Your task to perform on an android device: Do I have any events tomorrow? Image 0: 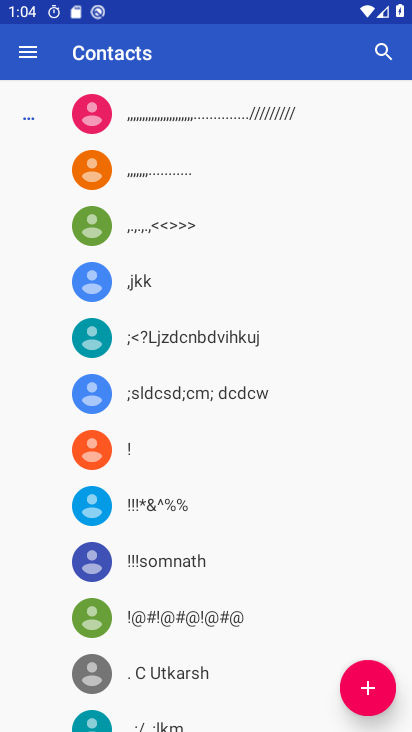
Step 0: drag from (190, 484) to (263, 244)
Your task to perform on an android device: Do I have any events tomorrow? Image 1: 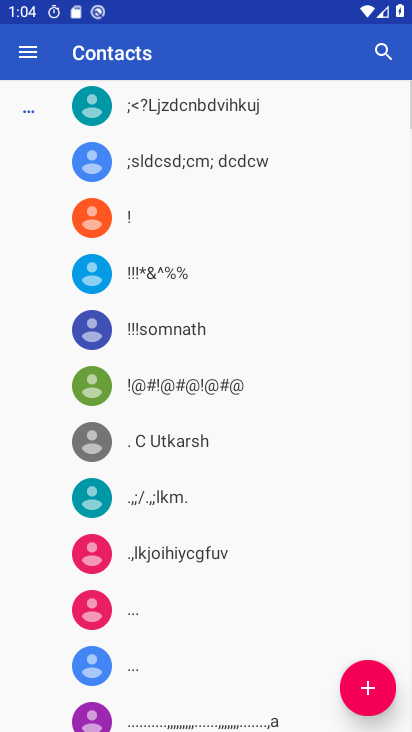
Step 1: press home button
Your task to perform on an android device: Do I have any events tomorrow? Image 2: 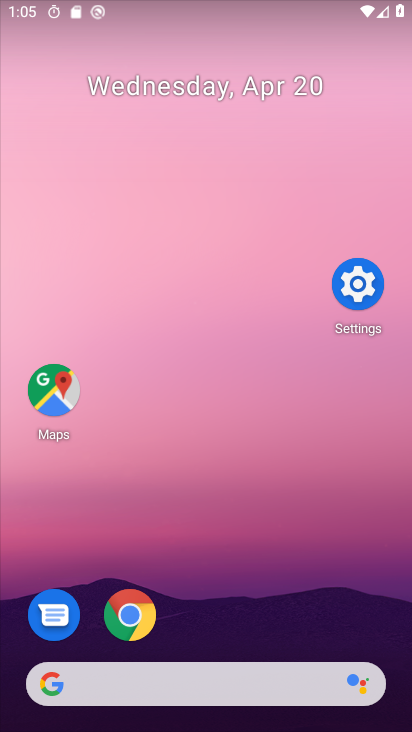
Step 2: drag from (200, 579) to (236, 55)
Your task to perform on an android device: Do I have any events tomorrow? Image 3: 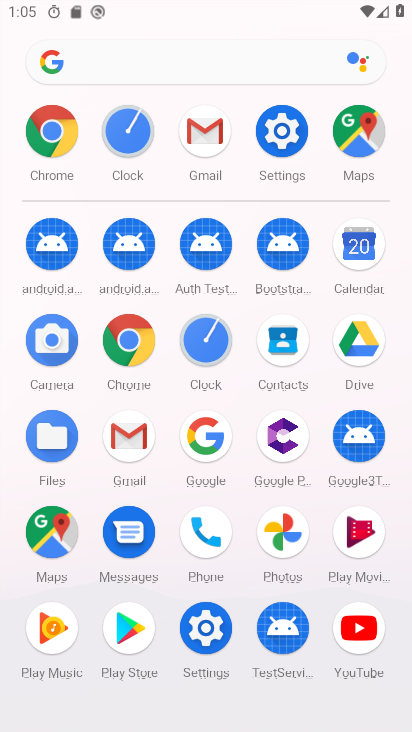
Step 3: click (360, 235)
Your task to perform on an android device: Do I have any events tomorrow? Image 4: 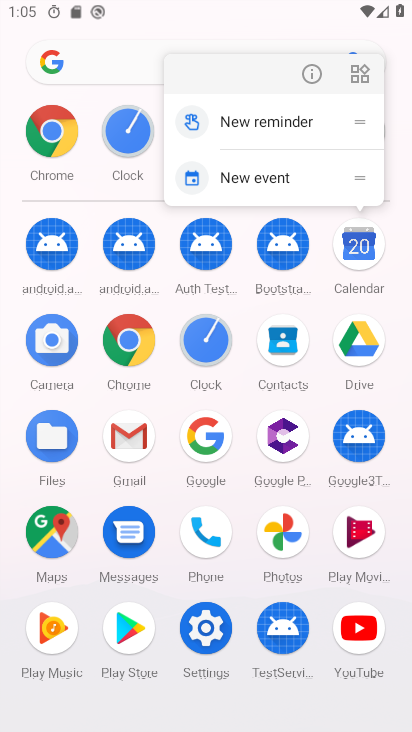
Step 4: click (319, 78)
Your task to perform on an android device: Do I have any events tomorrow? Image 5: 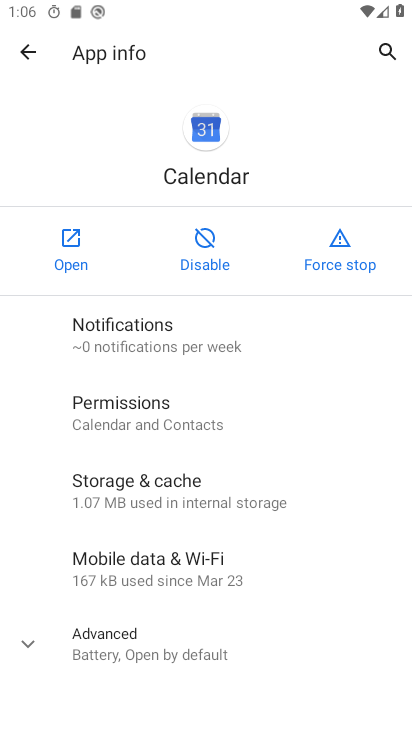
Step 5: click (74, 248)
Your task to perform on an android device: Do I have any events tomorrow? Image 6: 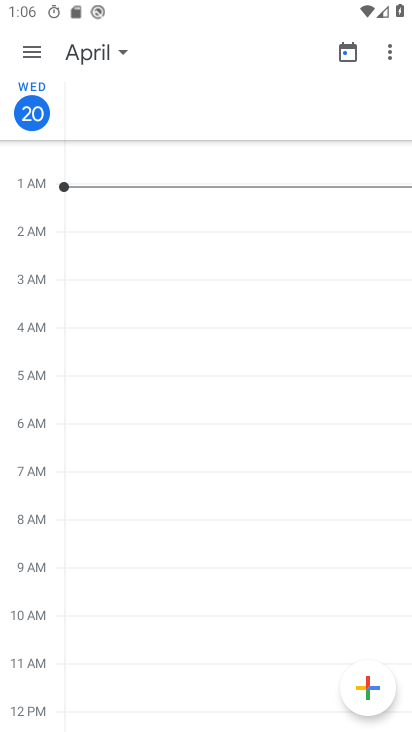
Step 6: task complete